Your task to perform on an android device: Open the stopwatch Image 0: 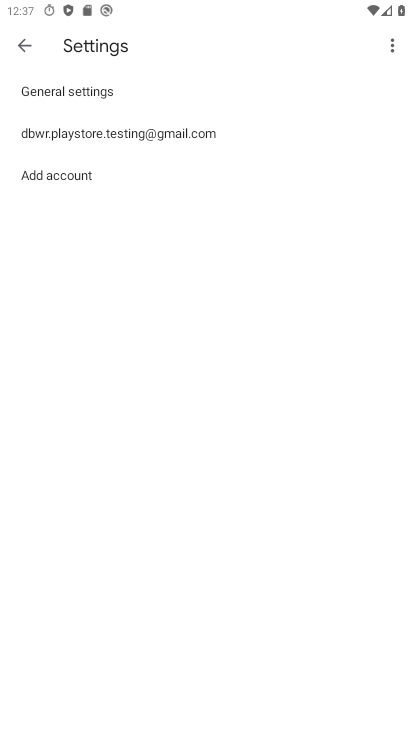
Step 0: press back button
Your task to perform on an android device: Open the stopwatch Image 1: 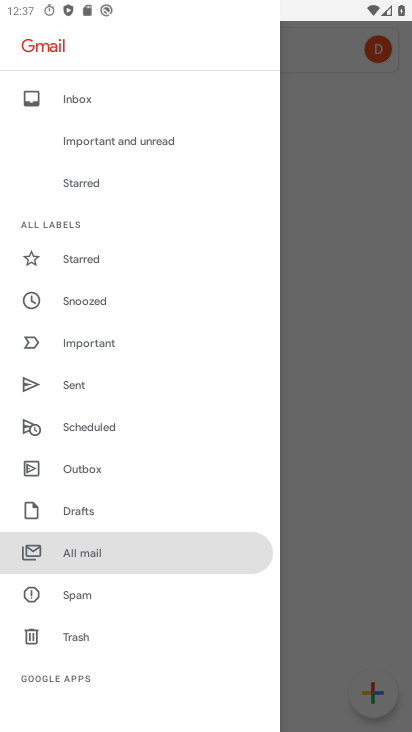
Step 1: press back button
Your task to perform on an android device: Open the stopwatch Image 2: 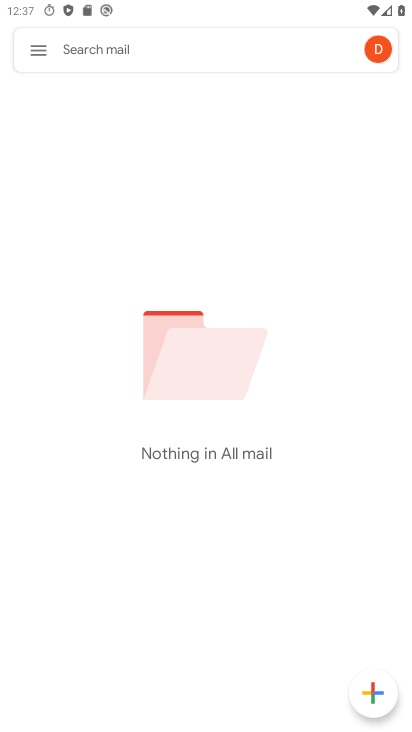
Step 2: press home button
Your task to perform on an android device: Open the stopwatch Image 3: 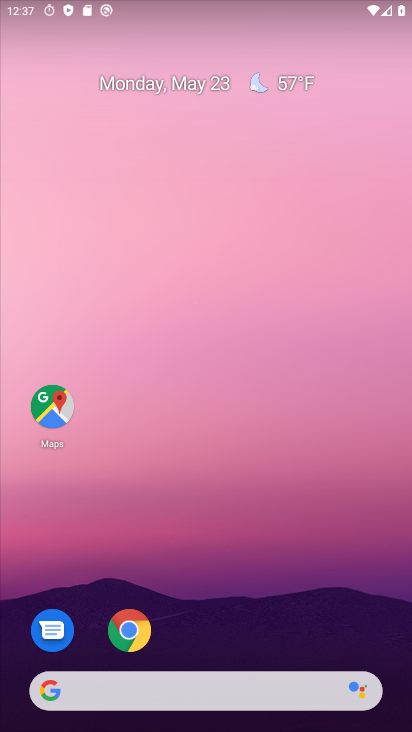
Step 3: drag from (227, 570) to (266, 76)
Your task to perform on an android device: Open the stopwatch Image 4: 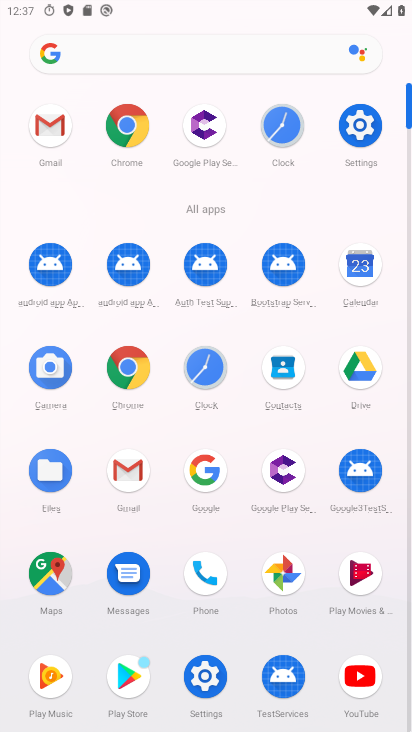
Step 4: drag from (17, 543) to (23, 302)
Your task to perform on an android device: Open the stopwatch Image 5: 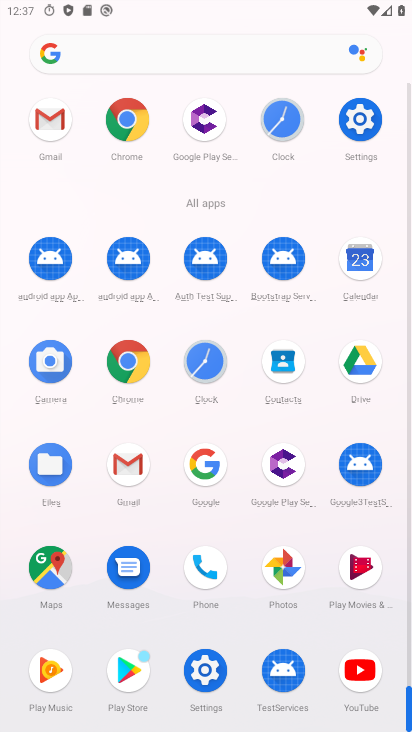
Step 5: click (207, 359)
Your task to perform on an android device: Open the stopwatch Image 6: 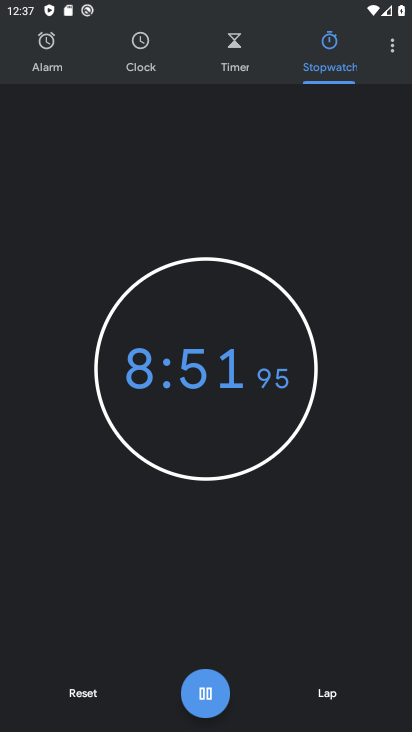
Step 6: click (322, 694)
Your task to perform on an android device: Open the stopwatch Image 7: 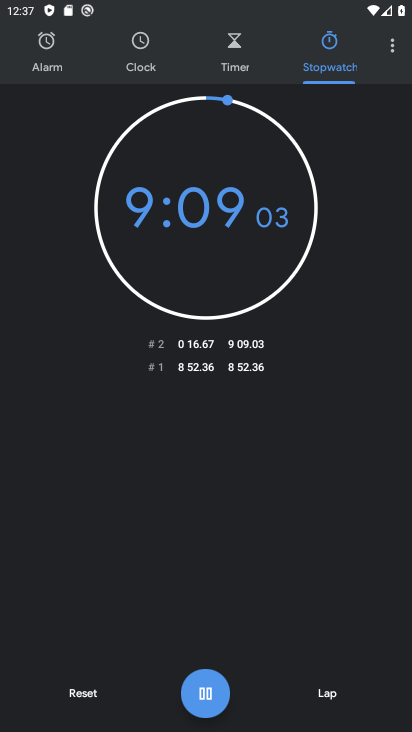
Step 7: task complete